Your task to perform on an android device: find snoozed emails in the gmail app Image 0: 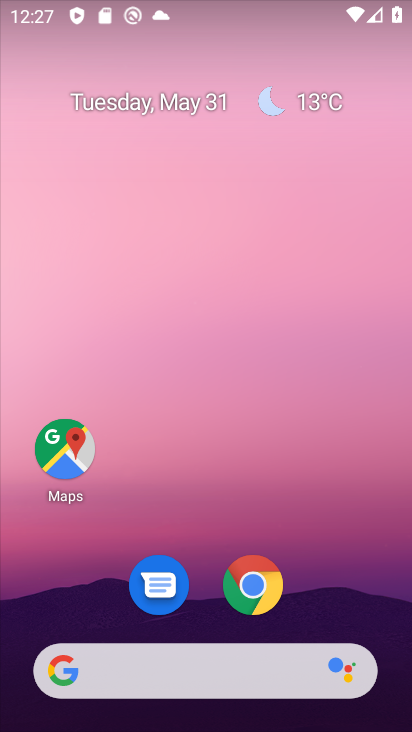
Step 0: drag from (224, 509) to (261, 0)
Your task to perform on an android device: find snoozed emails in the gmail app Image 1: 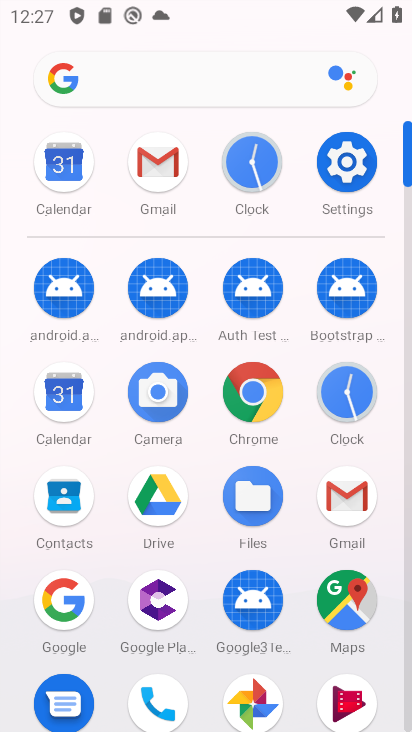
Step 1: click (170, 169)
Your task to perform on an android device: find snoozed emails in the gmail app Image 2: 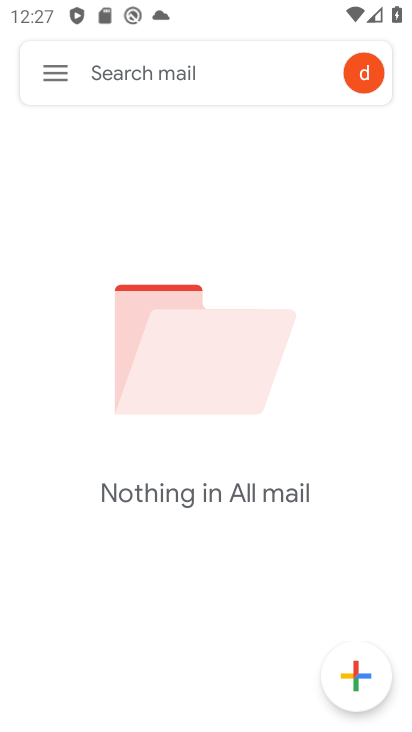
Step 2: click (54, 77)
Your task to perform on an android device: find snoozed emails in the gmail app Image 3: 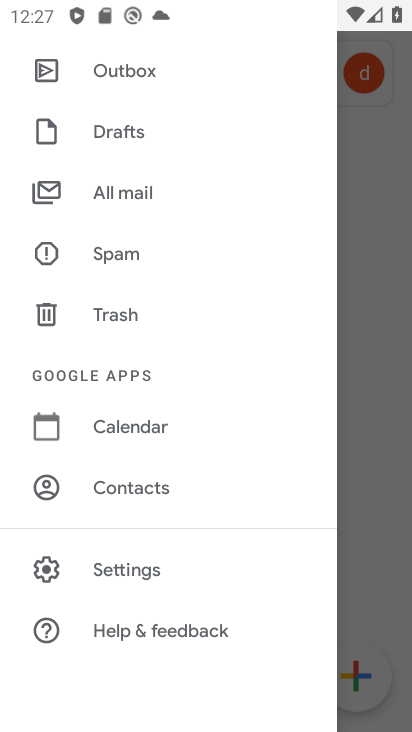
Step 3: drag from (156, 163) to (104, 566)
Your task to perform on an android device: find snoozed emails in the gmail app Image 4: 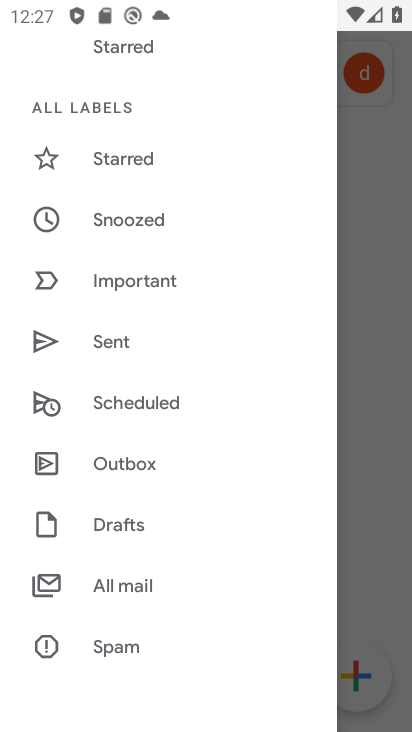
Step 4: click (141, 216)
Your task to perform on an android device: find snoozed emails in the gmail app Image 5: 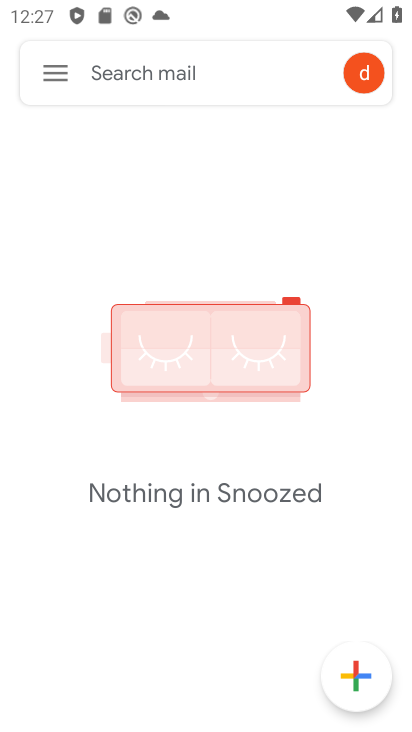
Step 5: task complete